Your task to perform on an android device: check out phone information Image 0: 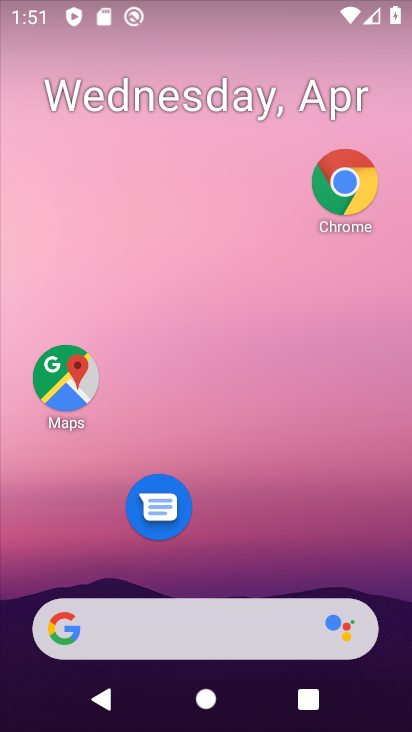
Step 0: drag from (244, 698) to (227, 23)
Your task to perform on an android device: check out phone information Image 1: 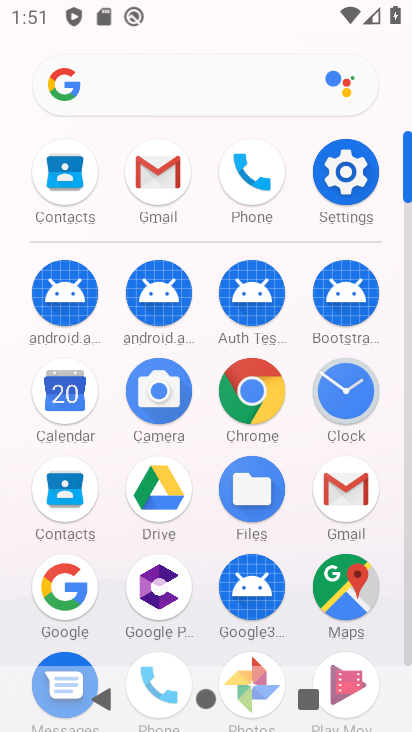
Step 1: click (351, 165)
Your task to perform on an android device: check out phone information Image 2: 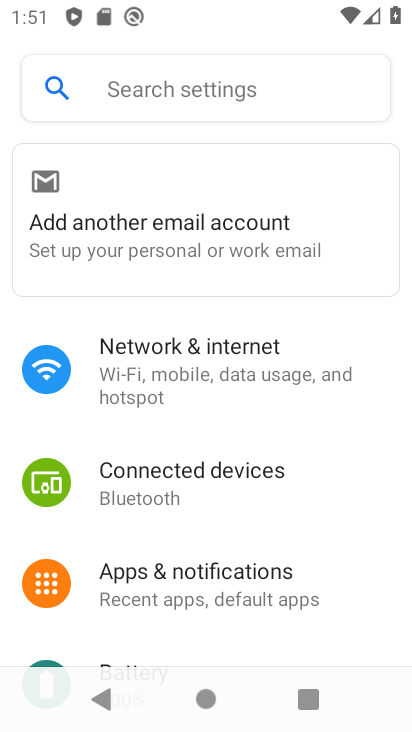
Step 2: drag from (315, 635) to (234, 71)
Your task to perform on an android device: check out phone information Image 3: 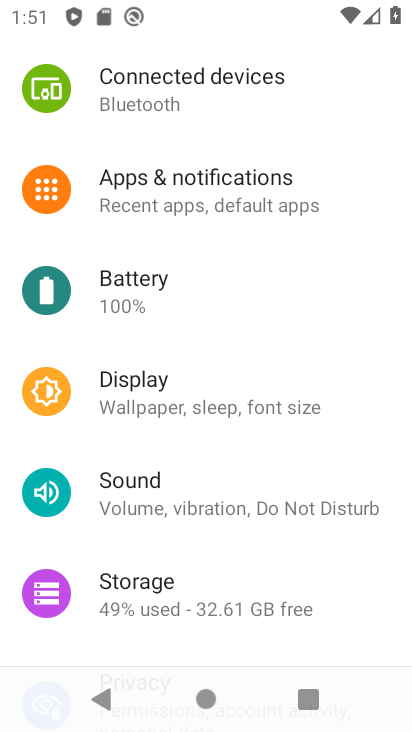
Step 3: drag from (346, 620) to (302, 0)
Your task to perform on an android device: check out phone information Image 4: 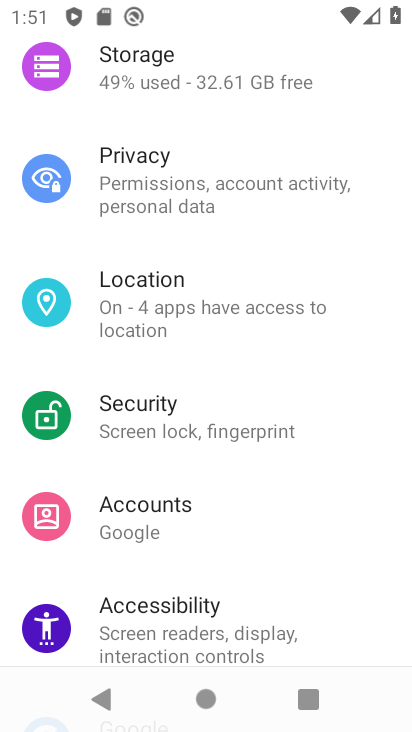
Step 4: drag from (294, 415) to (251, 28)
Your task to perform on an android device: check out phone information Image 5: 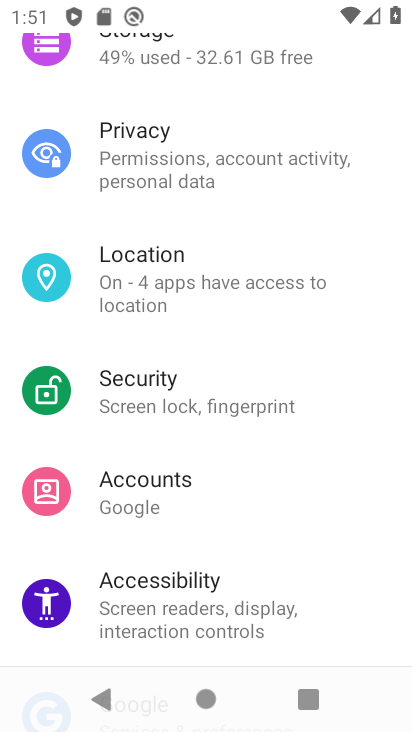
Step 5: drag from (285, 554) to (186, 44)
Your task to perform on an android device: check out phone information Image 6: 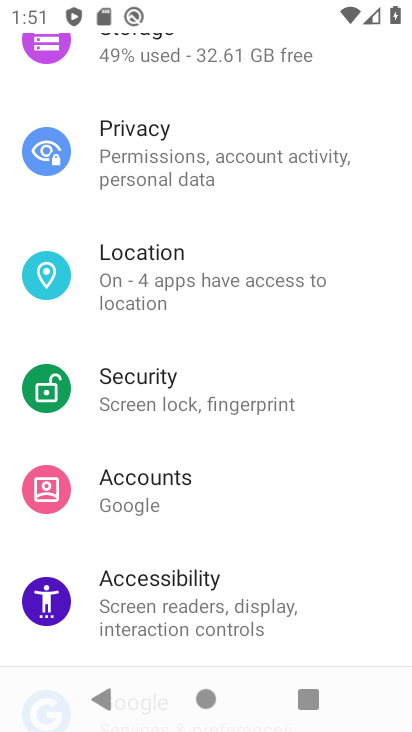
Step 6: drag from (343, 621) to (182, 52)
Your task to perform on an android device: check out phone information Image 7: 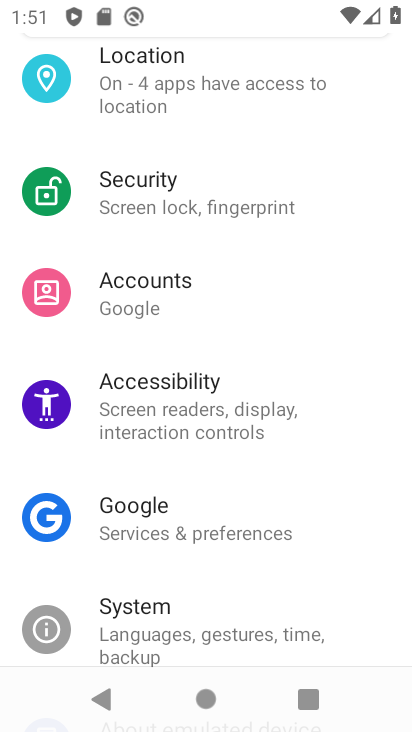
Step 7: drag from (283, 477) to (208, 11)
Your task to perform on an android device: check out phone information Image 8: 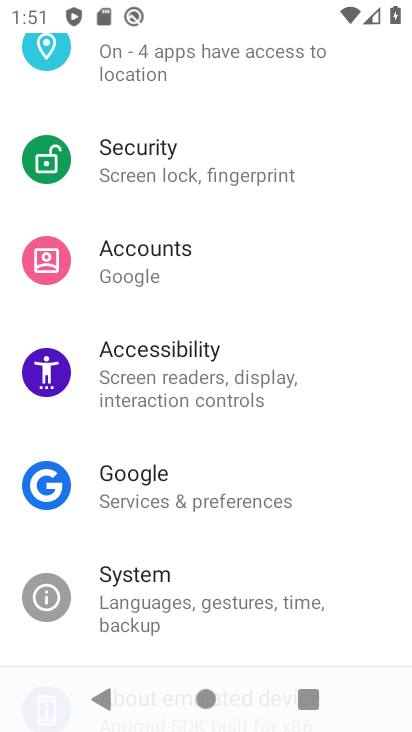
Step 8: drag from (310, 607) to (262, 5)
Your task to perform on an android device: check out phone information Image 9: 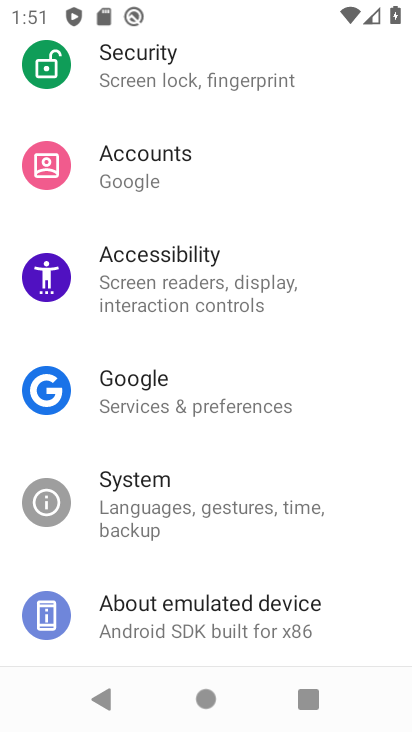
Step 9: click (231, 635)
Your task to perform on an android device: check out phone information Image 10: 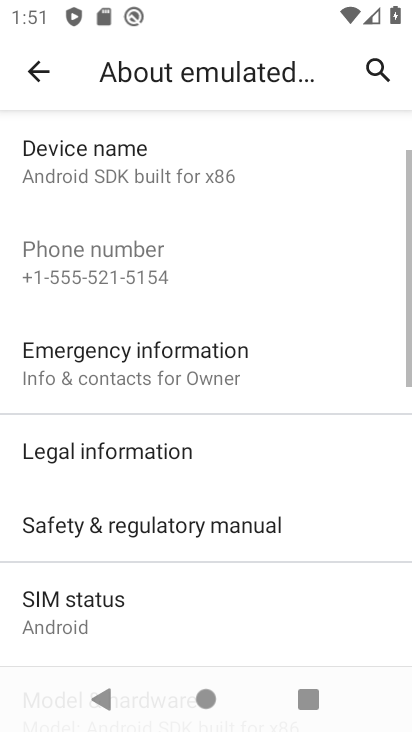
Step 10: task complete